Your task to perform on an android device: Open battery settings Image 0: 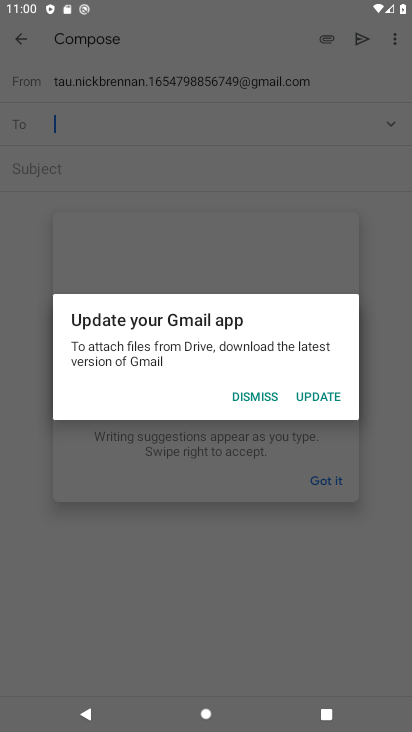
Step 0: press home button
Your task to perform on an android device: Open battery settings Image 1: 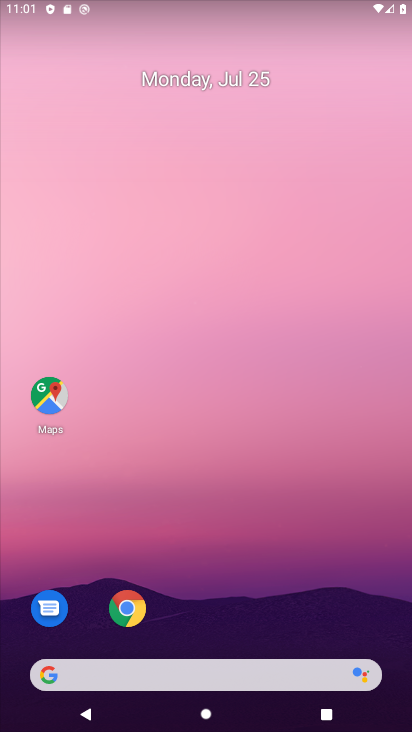
Step 1: drag from (211, 665) to (37, 504)
Your task to perform on an android device: Open battery settings Image 2: 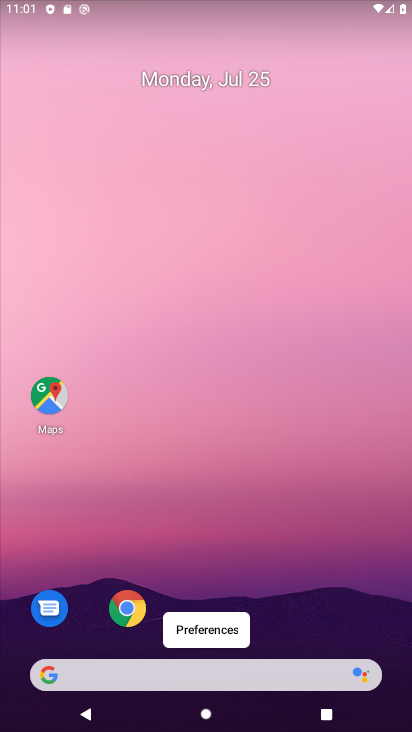
Step 2: drag from (201, 660) to (35, 20)
Your task to perform on an android device: Open battery settings Image 3: 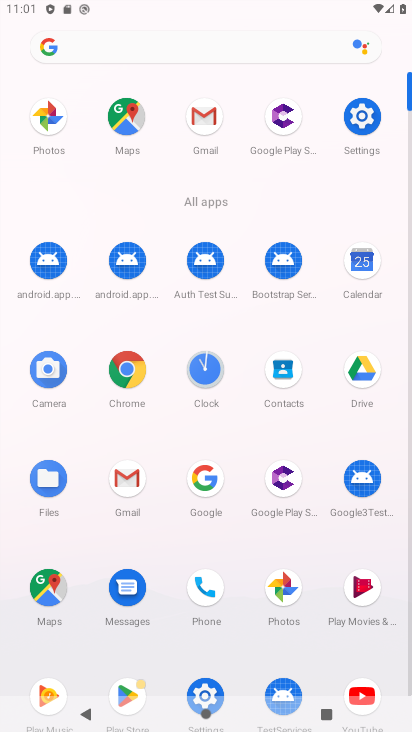
Step 3: click (364, 116)
Your task to perform on an android device: Open battery settings Image 4: 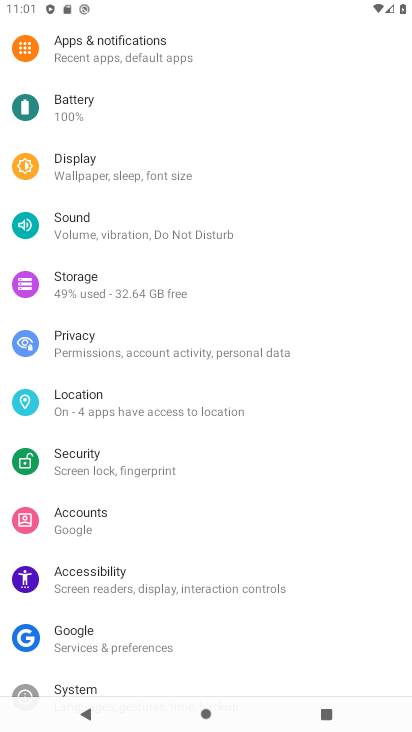
Step 4: click (73, 115)
Your task to perform on an android device: Open battery settings Image 5: 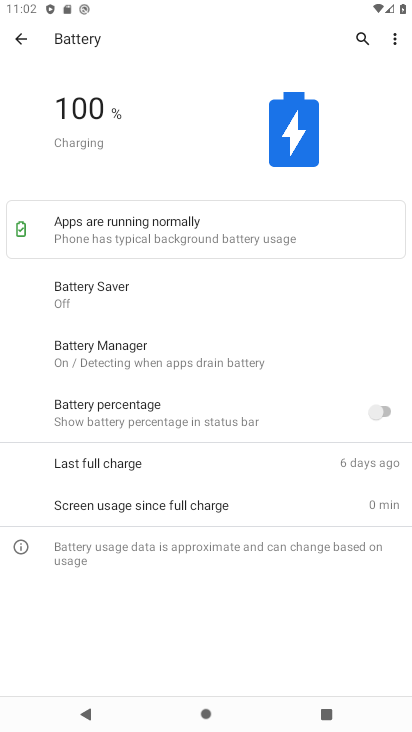
Step 5: task complete